Your task to perform on an android device: Open eBay Image 0: 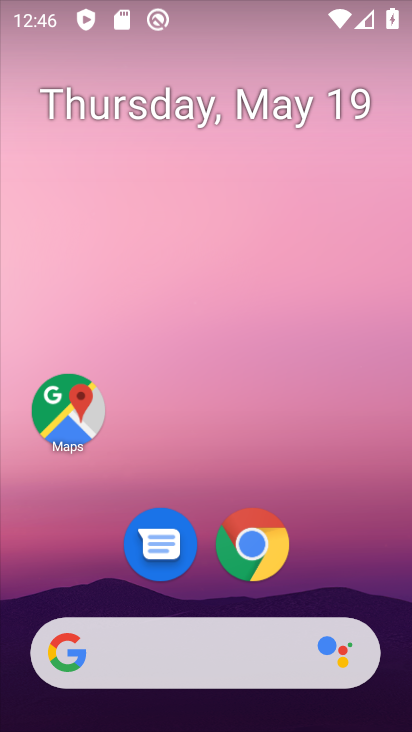
Step 0: drag from (368, 580) to (383, 35)
Your task to perform on an android device: Open eBay Image 1: 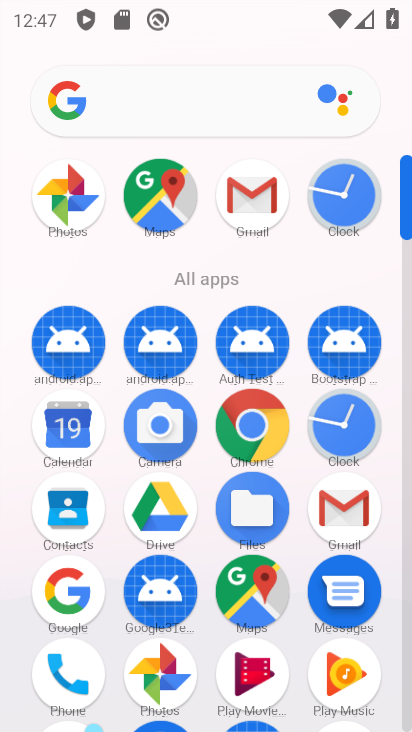
Step 1: click (252, 447)
Your task to perform on an android device: Open eBay Image 2: 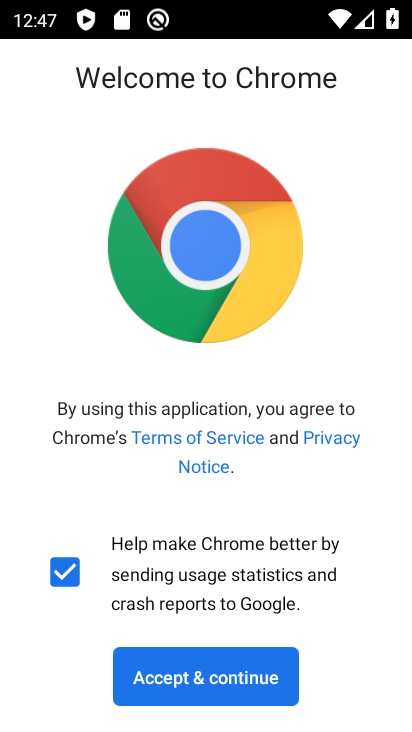
Step 2: click (220, 682)
Your task to perform on an android device: Open eBay Image 3: 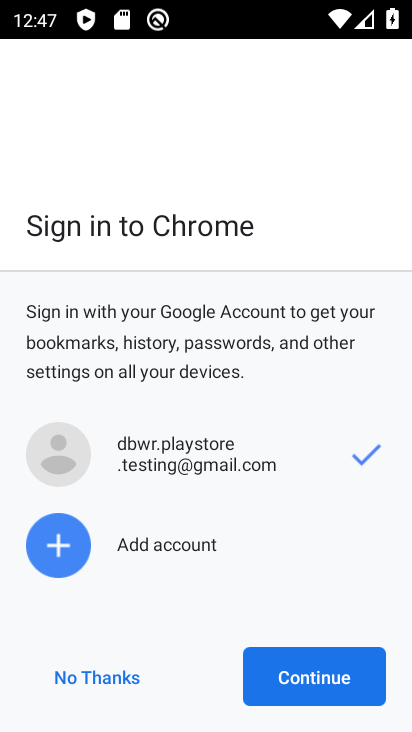
Step 3: click (371, 697)
Your task to perform on an android device: Open eBay Image 4: 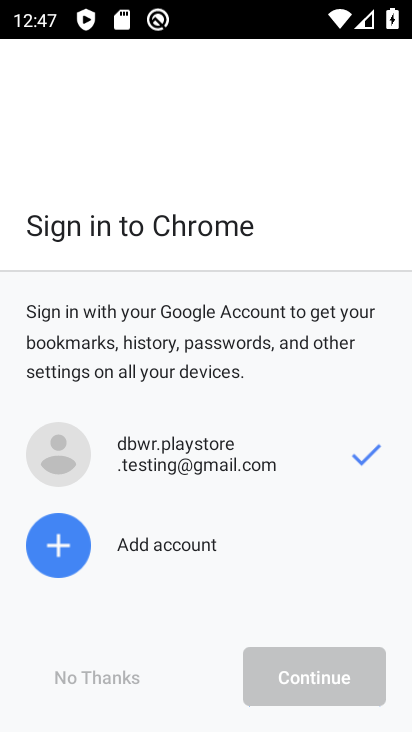
Step 4: click (371, 697)
Your task to perform on an android device: Open eBay Image 5: 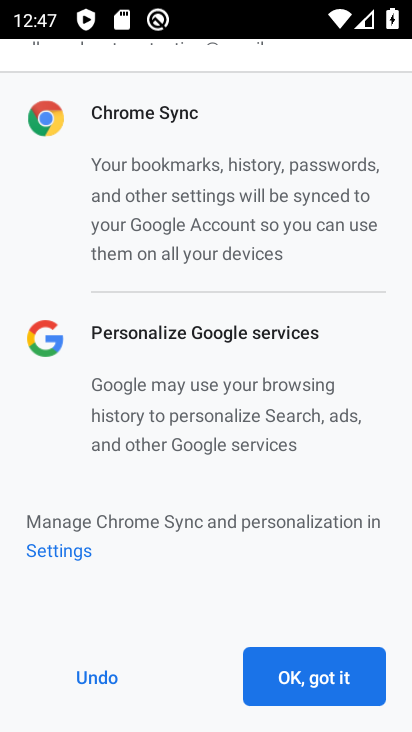
Step 5: click (371, 697)
Your task to perform on an android device: Open eBay Image 6: 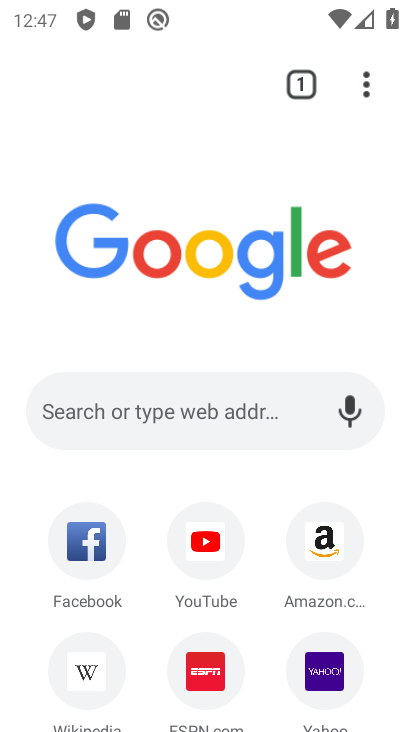
Step 6: drag from (375, 76) to (388, 4)
Your task to perform on an android device: Open eBay Image 7: 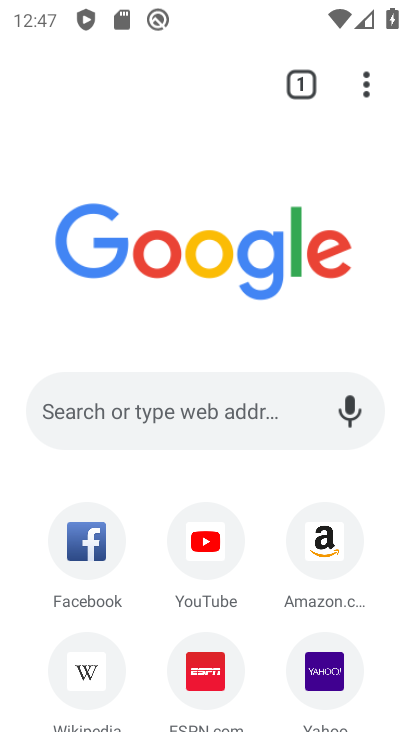
Step 7: drag from (202, 458) to (255, 236)
Your task to perform on an android device: Open eBay Image 8: 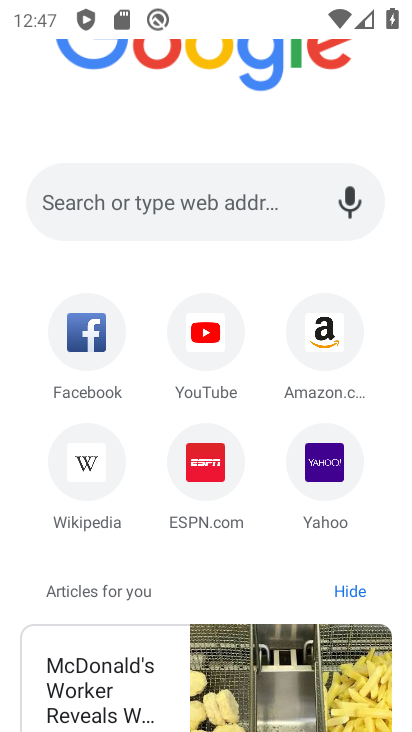
Step 8: click (210, 200)
Your task to perform on an android device: Open eBay Image 9: 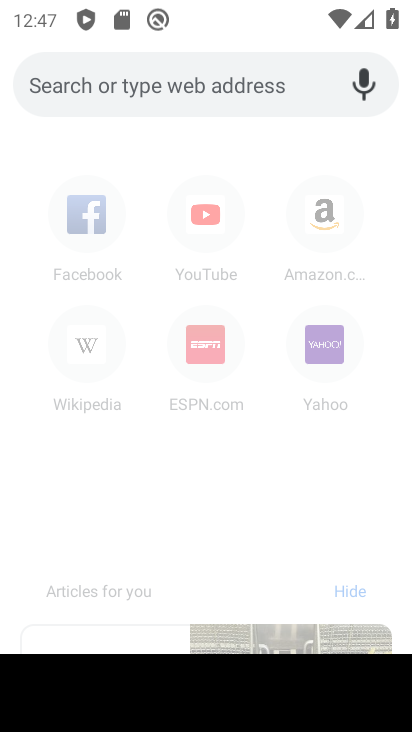
Step 9: type "eBay"
Your task to perform on an android device: Open eBay Image 10: 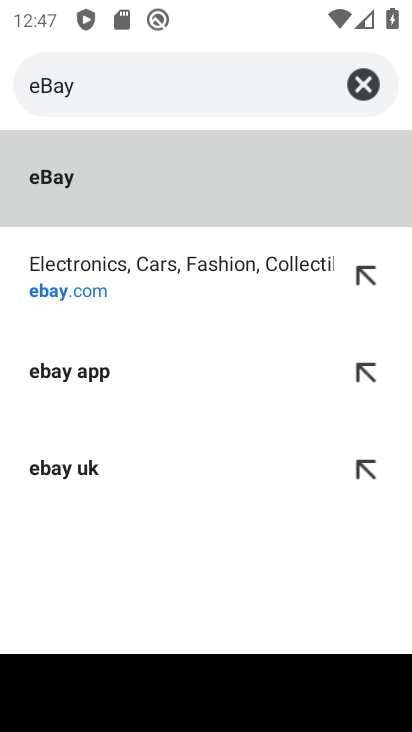
Step 10: click (102, 271)
Your task to perform on an android device: Open eBay Image 11: 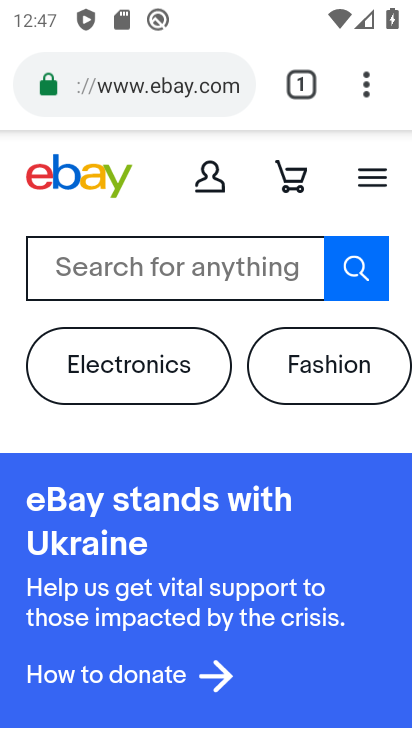
Step 11: task complete